Your task to perform on an android device: toggle sleep mode Image 0: 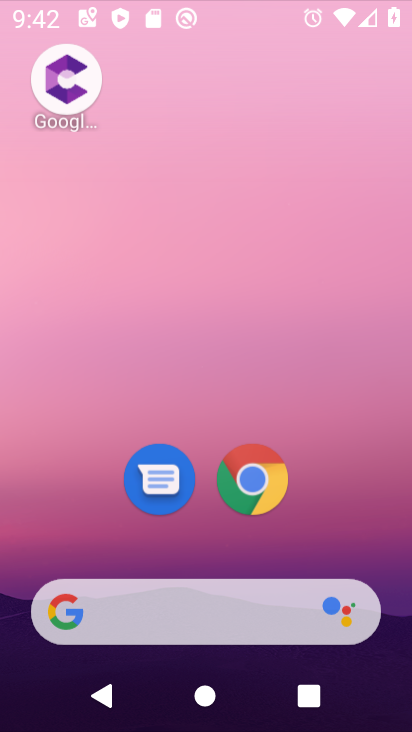
Step 0: press home button
Your task to perform on an android device: toggle sleep mode Image 1: 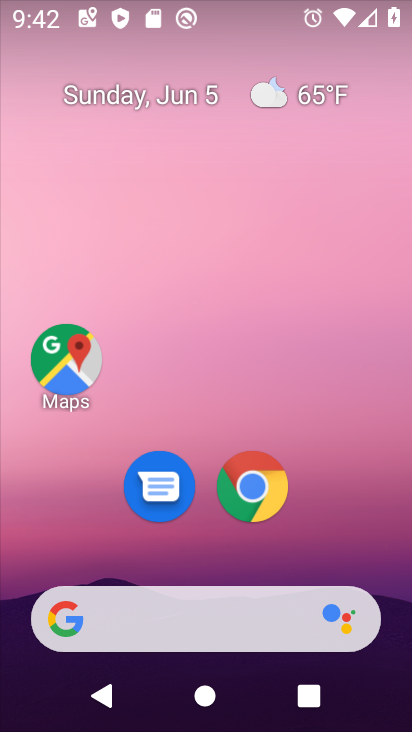
Step 1: drag from (326, 506) to (343, 89)
Your task to perform on an android device: toggle sleep mode Image 2: 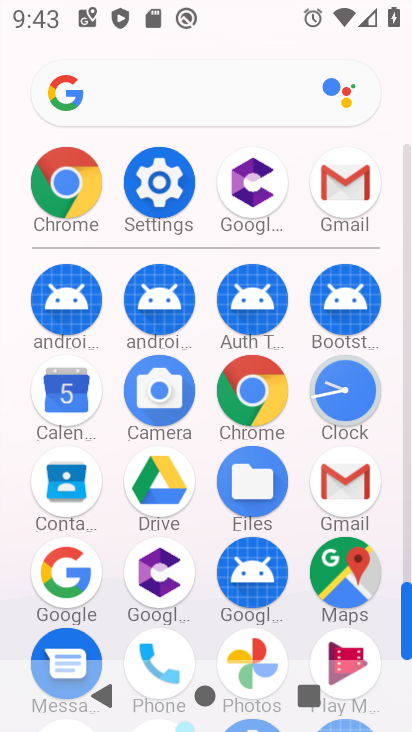
Step 2: click (173, 199)
Your task to perform on an android device: toggle sleep mode Image 3: 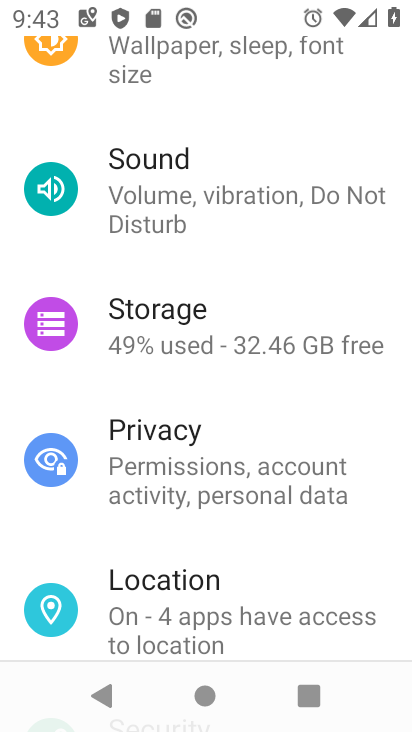
Step 3: drag from (269, 216) to (308, 530)
Your task to perform on an android device: toggle sleep mode Image 4: 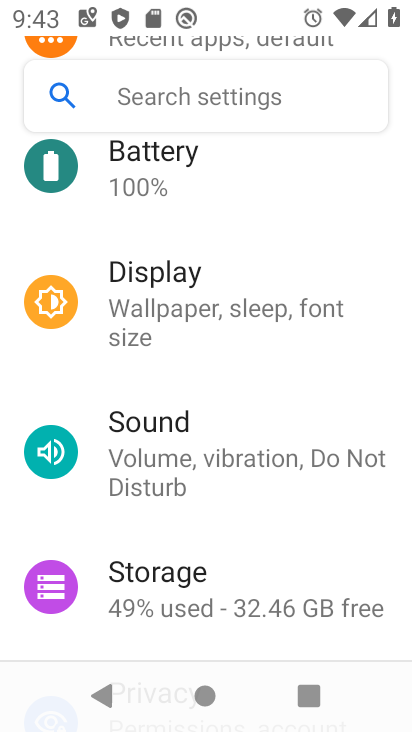
Step 4: click (263, 113)
Your task to perform on an android device: toggle sleep mode Image 5: 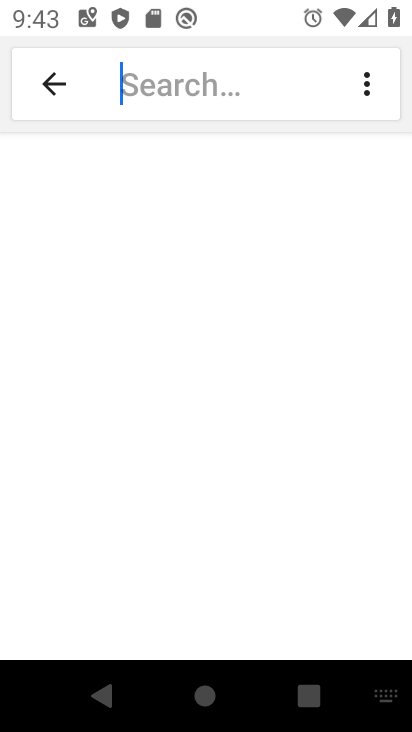
Step 5: type "sleep mode"
Your task to perform on an android device: toggle sleep mode Image 6: 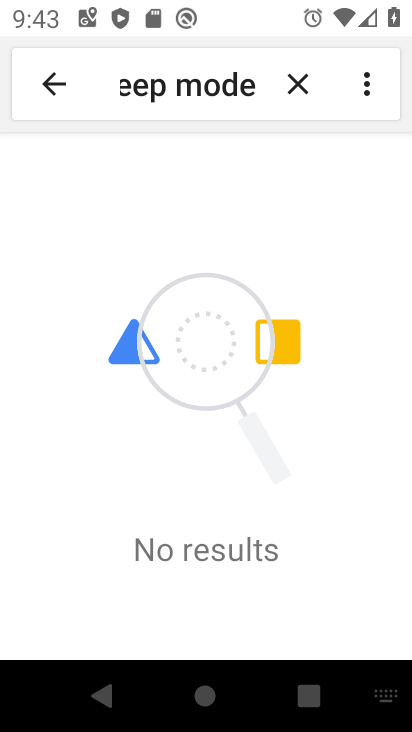
Step 6: task complete